Your task to perform on an android device: create a new album in the google photos Image 0: 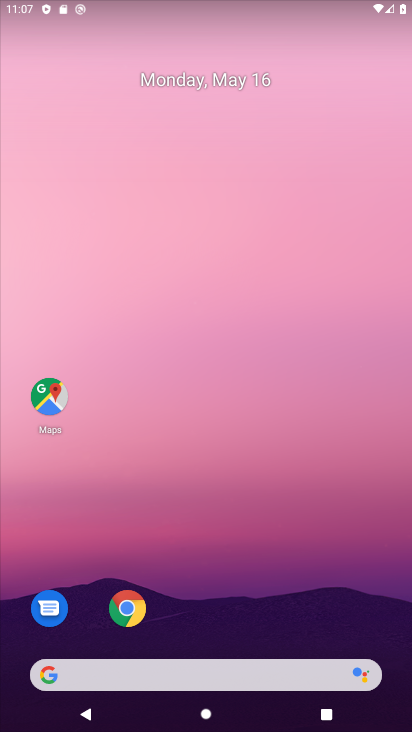
Step 0: drag from (228, 564) to (277, 162)
Your task to perform on an android device: create a new album in the google photos Image 1: 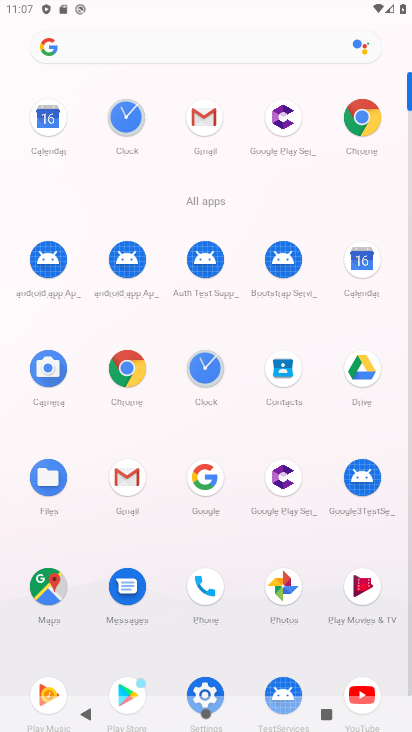
Step 1: click (288, 593)
Your task to perform on an android device: create a new album in the google photos Image 2: 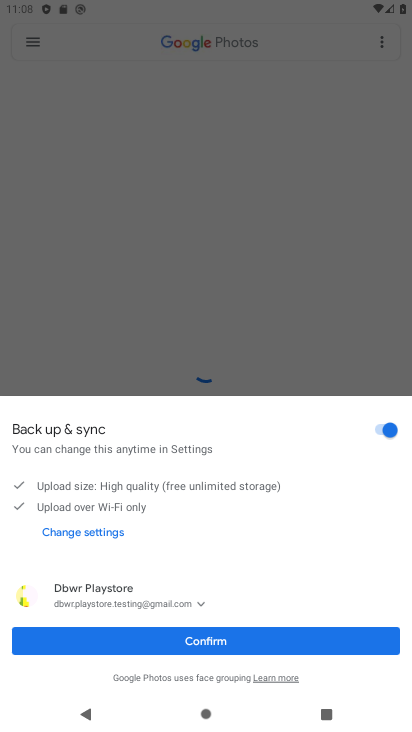
Step 2: click (205, 643)
Your task to perform on an android device: create a new album in the google photos Image 3: 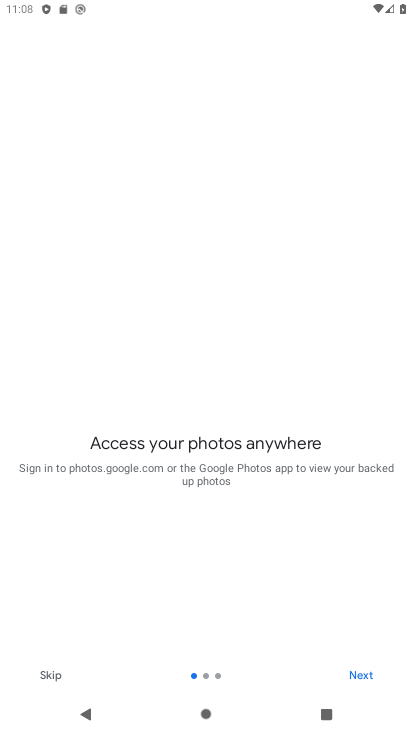
Step 3: click (351, 676)
Your task to perform on an android device: create a new album in the google photos Image 4: 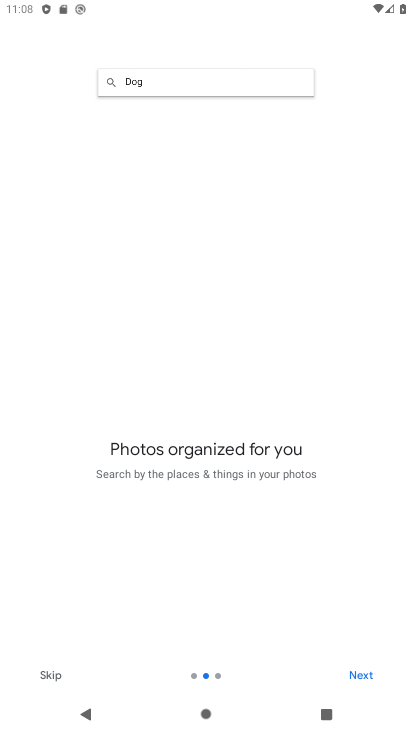
Step 4: click (351, 676)
Your task to perform on an android device: create a new album in the google photos Image 5: 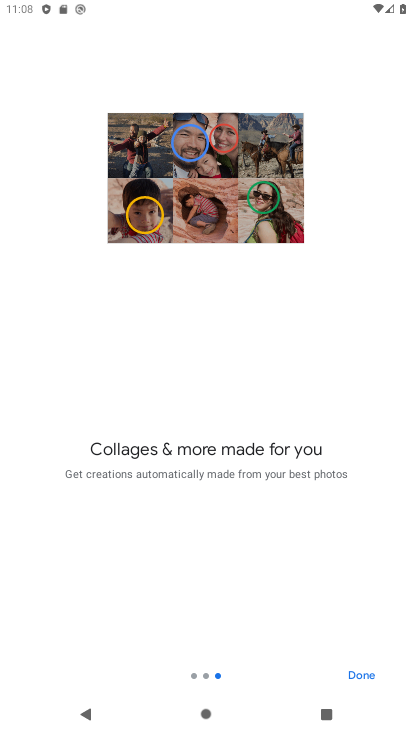
Step 5: click (357, 682)
Your task to perform on an android device: create a new album in the google photos Image 6: 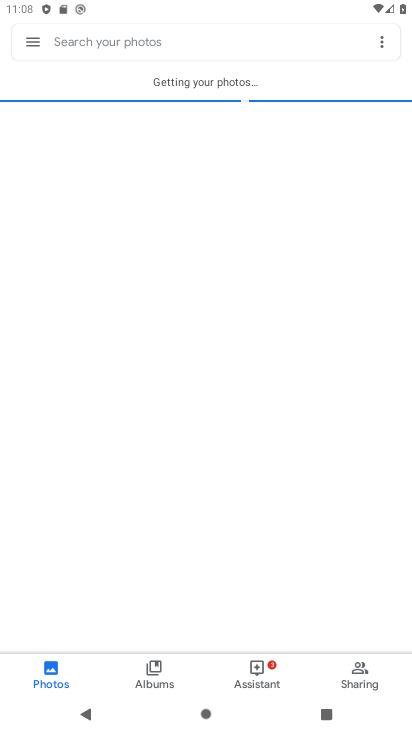
Step 6: click (158, 683)
Your task to perform on an android device: create a new album in the google photos Image 7: 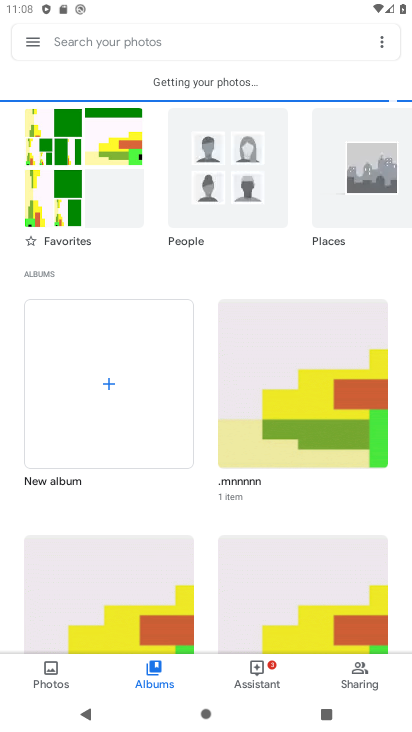
Step 7: click (124, 386)
Your task to perform on an android device: create a new album in the google photos Image 8: 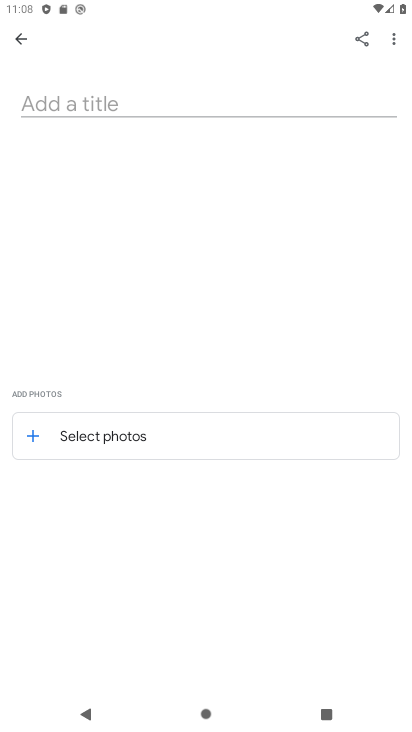
Step 8: click (99, 422)
Your task to perform on an android device: create a new album in the google photos Image 9: 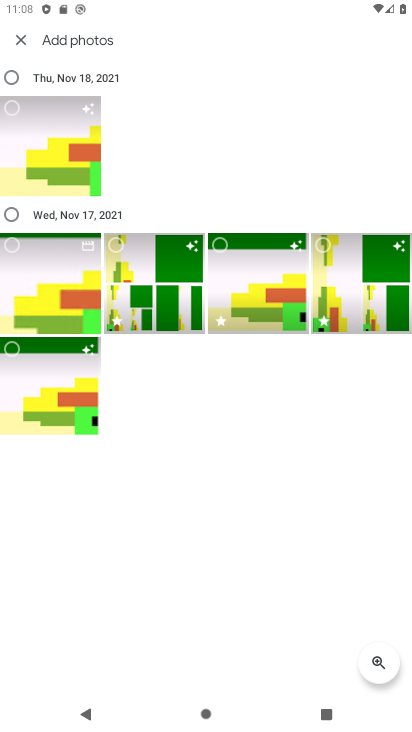
Step 9: click (68, 281)
Your task to perform on an android device: create a new album in the google photos Image 10: 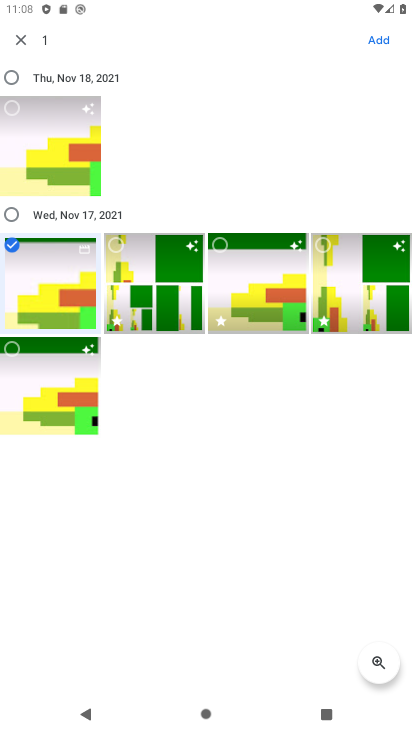
Step 10: click (152, 274)
Your task to perform on an android device: create a new album in the google photos Image 11: 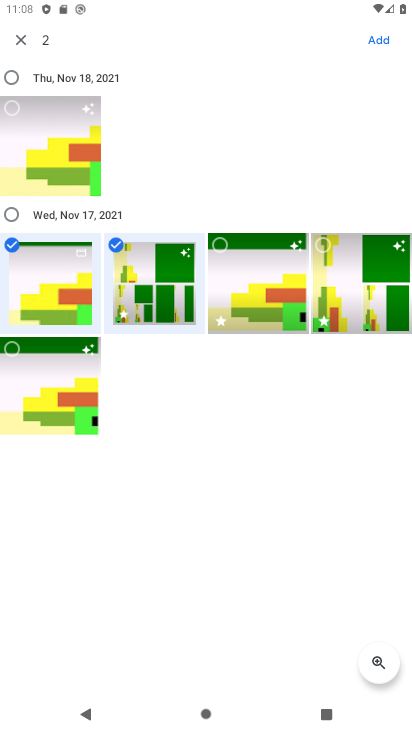
Step 11: click (246, 285)
Your task to perform on an android device: create a new album in the google photos Image 12: 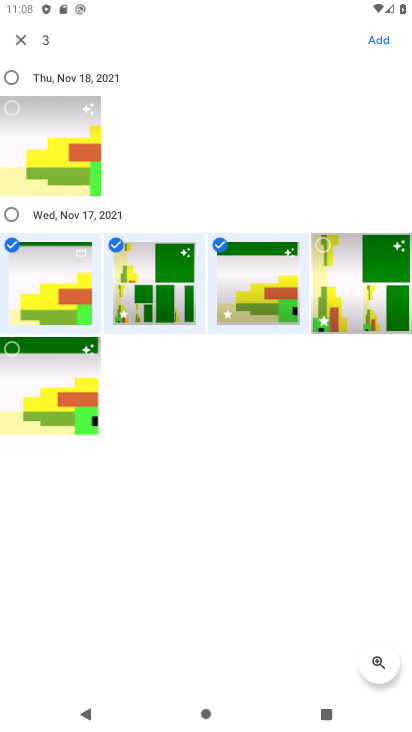
Step 12: click (392, 36)
Your task to perform on an android device: create a new album in the google photos Image 13: 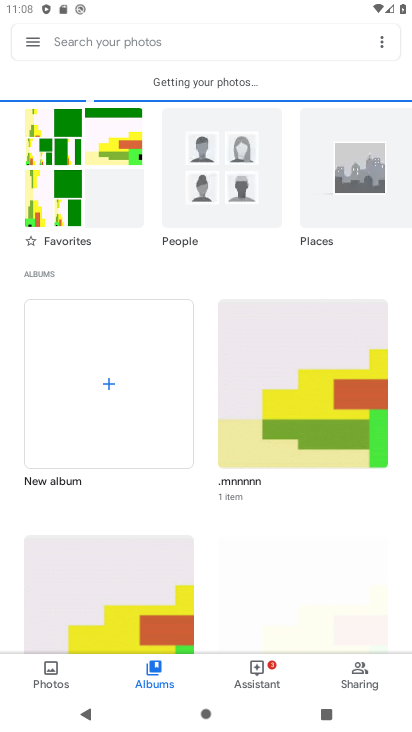
Step 13: task complete